Your task to perform on an android device: turn notification dots on Image 0: 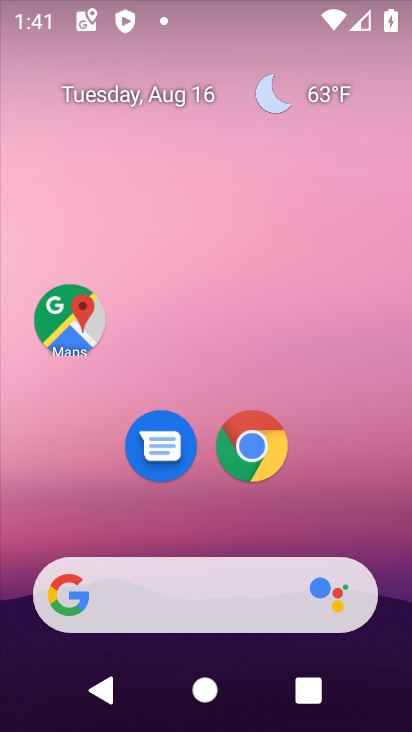
Step 0: press home button
Your task to perform on an android device: turn notification dots on Image 1: 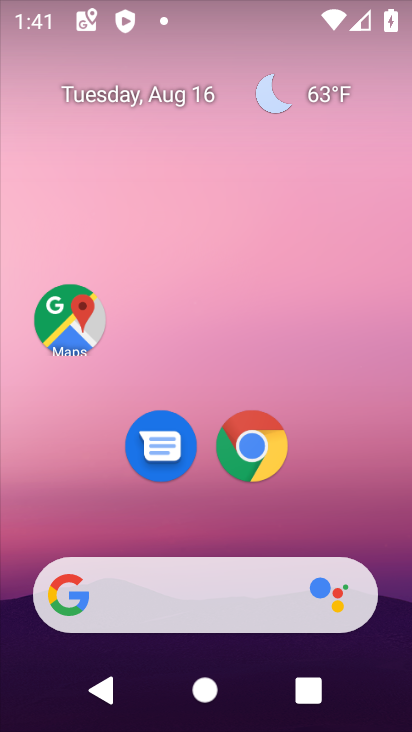
Step 1: drag from (214, 523) to (226, 8)
Your task to perform on an android device: turn notification dots on Image 2: 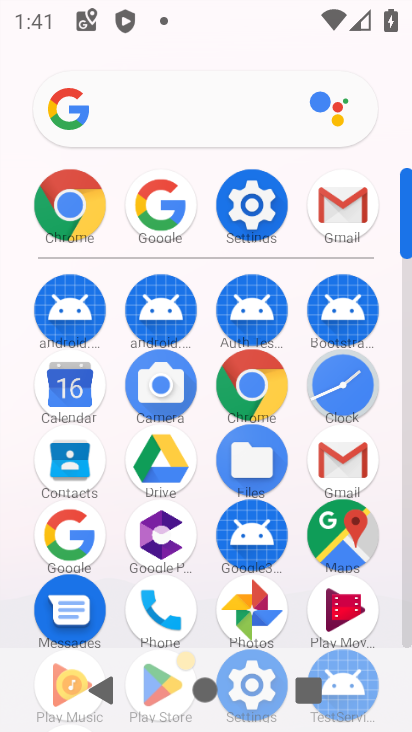
Step 2: click (247, 203)
Your task to perform on an android device: turn notification dots on Image 3: 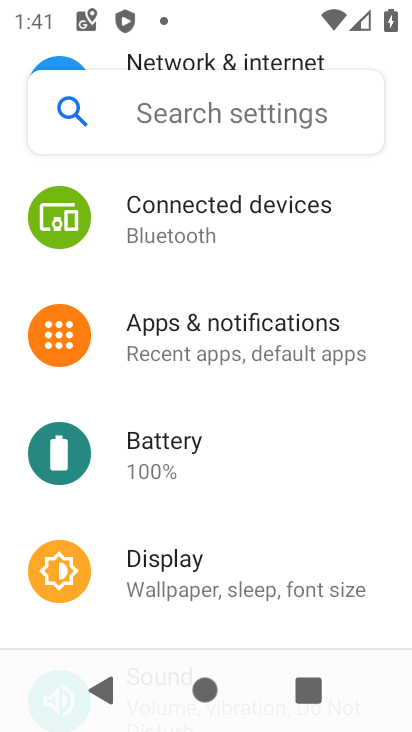
Step 3: task complete